Your task to perform on an android device: add a label to a message in the gmail app Image 0: 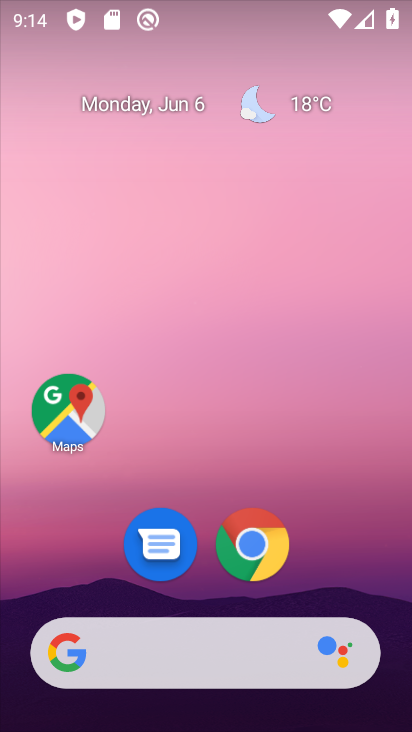
Step 0: drag from (400, 618) to (343, 123)
Your task to perform on an android device: add a label to a message in the gmail app Image 1: 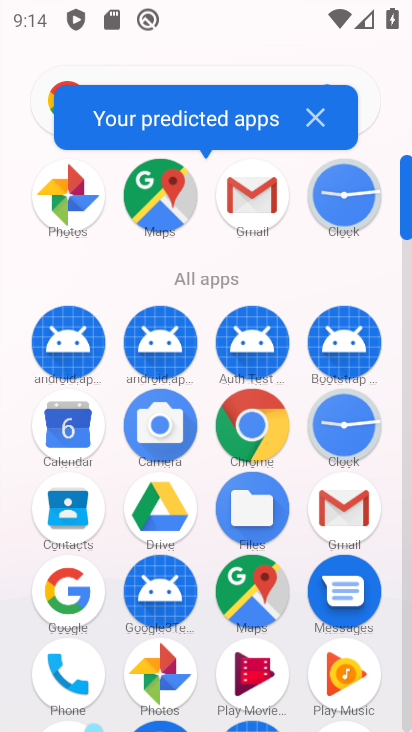
Step 1: click (341, 506)
Your task to perform on an android device: add a label to a message in the gmail app Image 2: 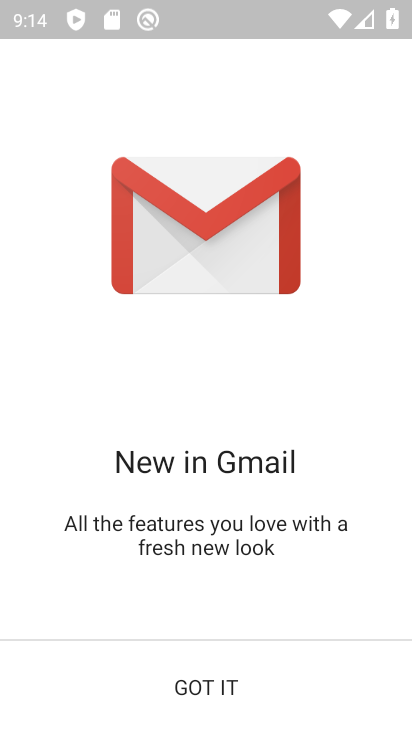
Step 2: click (194, 675)
Your task to perform on an android device: add a label to a message in the gmail app Image 3: 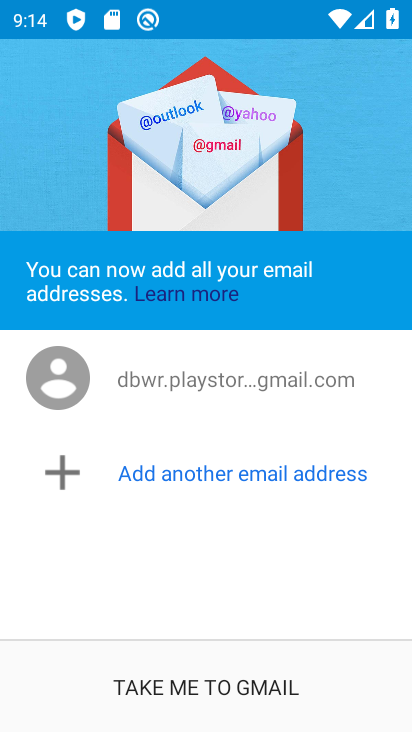
Step 3: click (194, 675)
Your task to perform on an android device: add a label to a message in the gmail app Image 4: 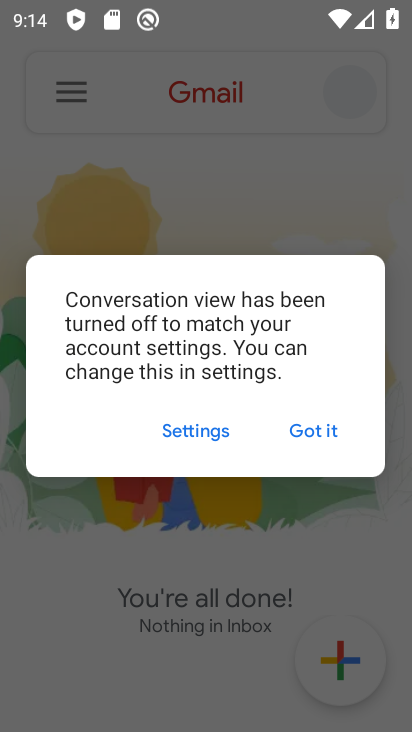
Step 4: click (314, 426)
Your task to perform on an android device: add a label to a message in the gmail app Image 5: 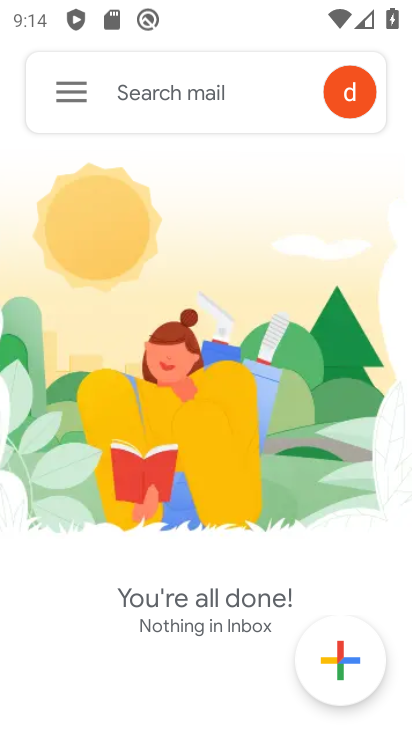
Step 5: click (76, 96)
Your task to perform on an android device: add a label to a message in the gmail app Image 6: 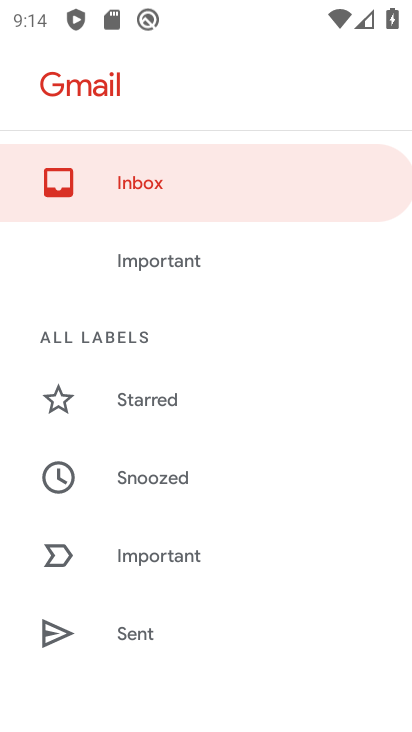
Step 6: drag from (214, 607) to (276, 227)
Your task to perform on an android device: add a label to a message in the gmail app Image 7: 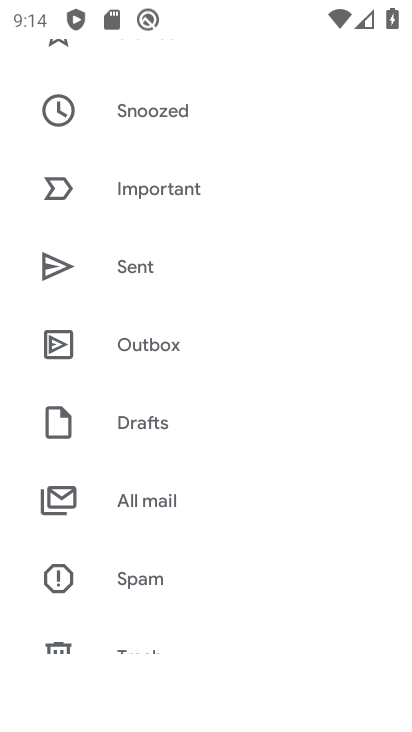
Step 7: drag from (216, 566) to (261, 200)
Your task to perform on an android device: add a label to a message in the gmail app Image 8: 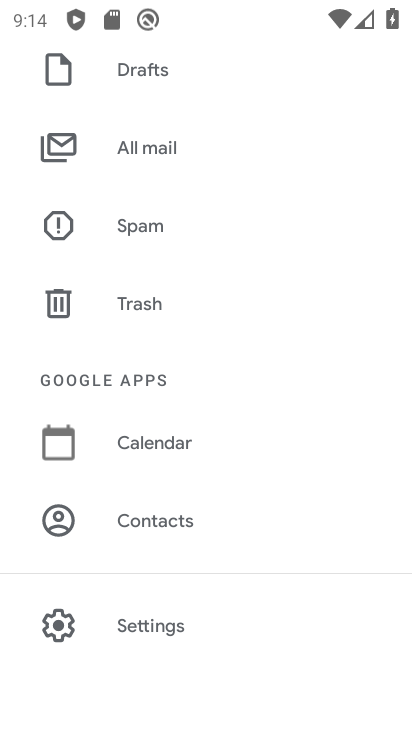
Step 8: click (156, 142)
Your task to perform on an android device: add a label to a message in the gmail app Image 9: 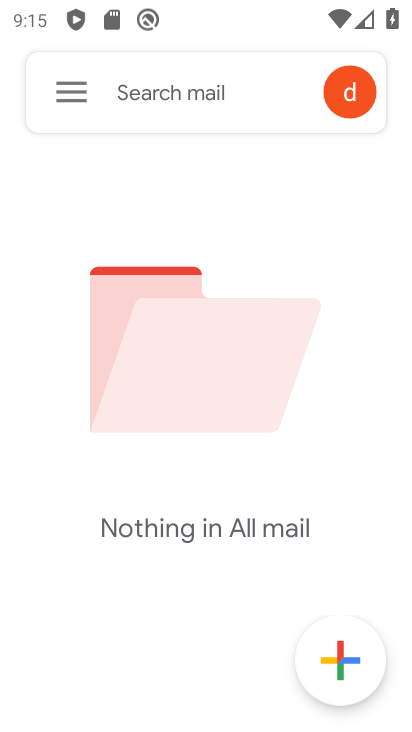
Step 9: task complete